Your task to perform on an android device: Open calendar and show me the first week of next month Image 0: 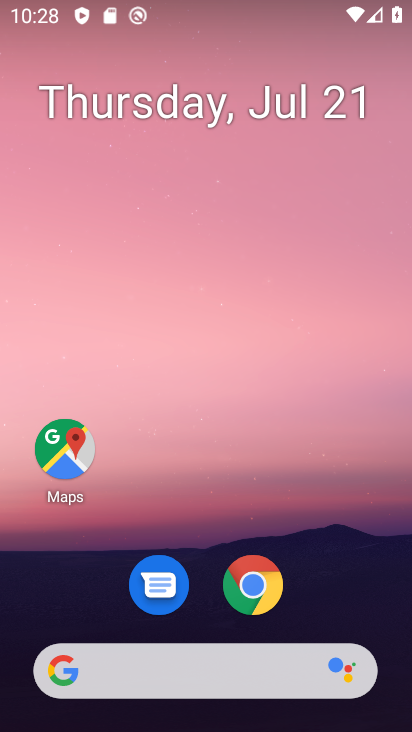
Step 0: press home button
Your task to perform on an android device: Open calendar and show me the first week of next month Image 1: 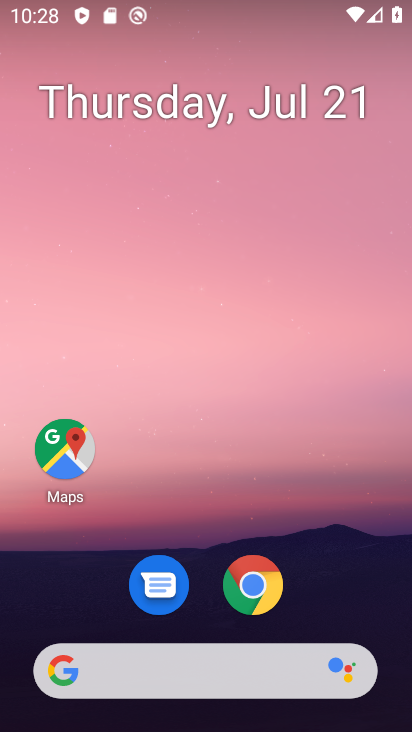
Step 1: drag from (279, 441) to (291, 156)
Your task to perform on an android device: Open calendar and show me the first week of next month Image 2: 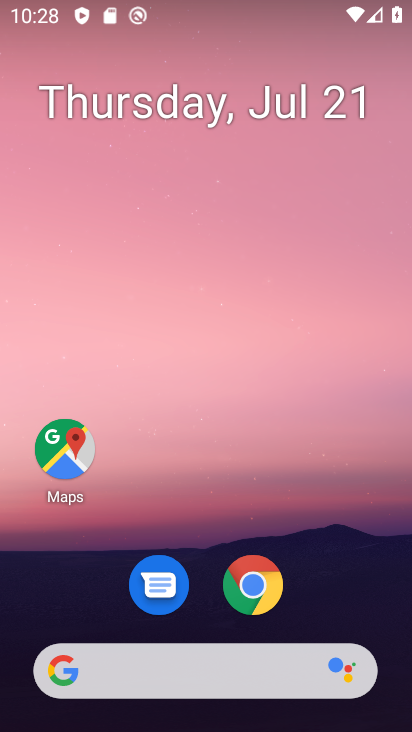
Step 2: drag from (172, 656) to (245, 15)
Your task to perform on an android device: Open calendar and show me the first week of next month Image 3: 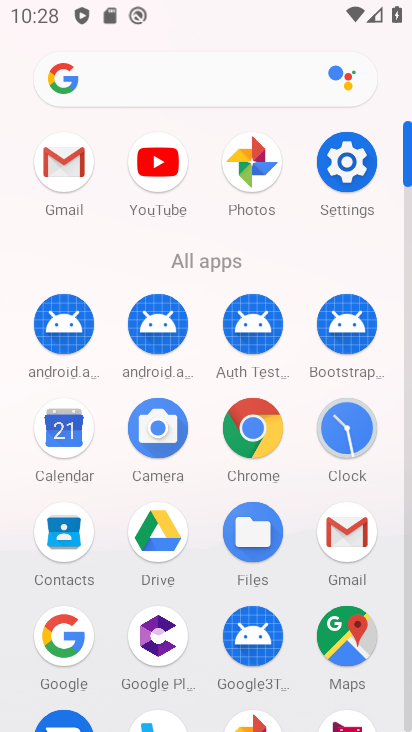
Step 3: click (64, 433)
Your task to perform on an android device: Open calendar and show me the first week of next month Image 4: 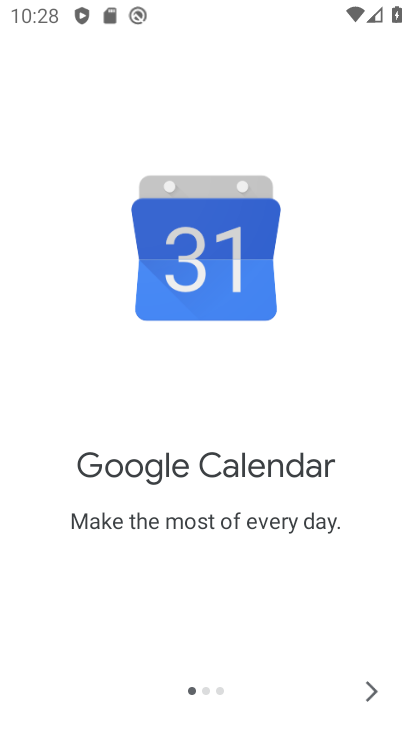
Step 4: click (354, 699)
Your task to perform on an android device: Open calendar and show me the first week of next month Image 5: 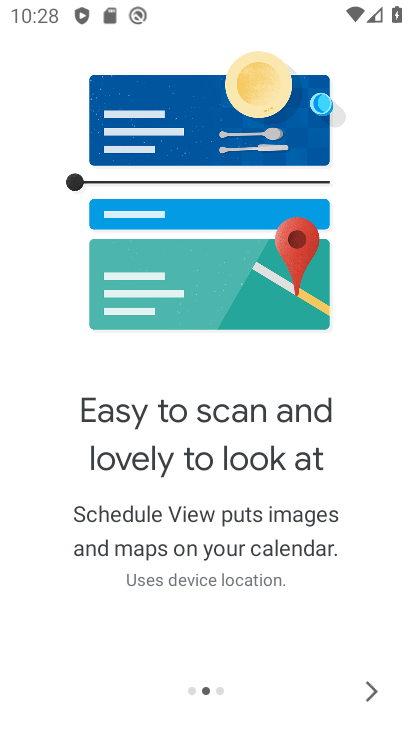
Step 5: click (354, 699)
Your task to perform on an android device: Open calendar and show me the first week of next month Image 6: 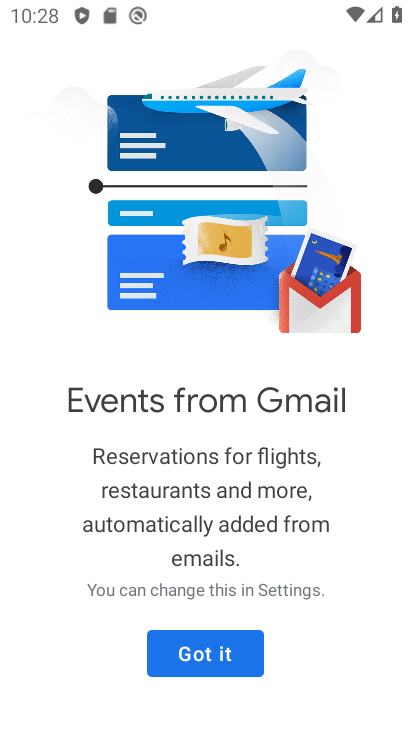
Step 6: click (210, 645)
Your task to perform on an android device: Open calendar and show me the first week of next month Image 7: 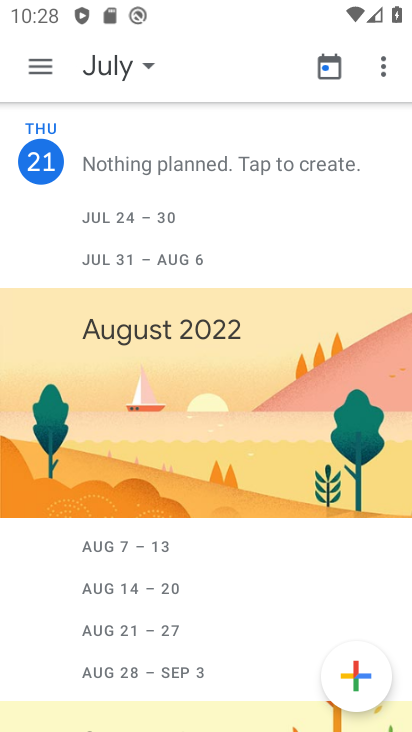
Step 7: click (122, 72)
Your task to perform on an android device: Open calendar and show me the first week of next month Image 8: 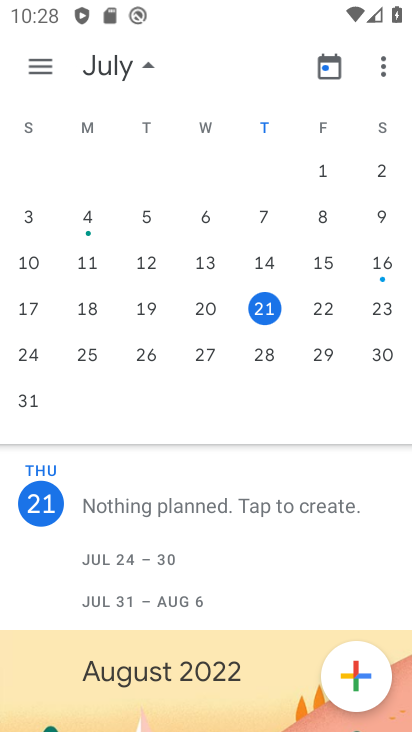
Step 8: drag from (342, 274) to (82, 240)
Your task to perform on an android device: Open calendar and show me the first week of next month Image 9: 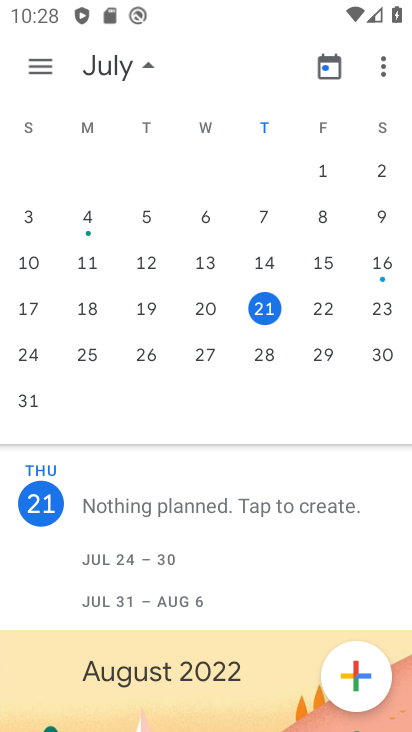
Step 9: drag from (156, 180) to (77, 191)
Your task to perform on an android device: Open calendar and show me the first week of next month Image 10: 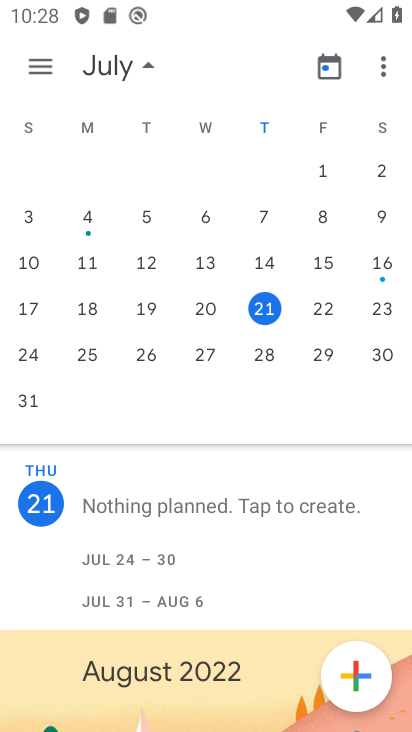
Step 10: drag from (340, 354) to (78, 258)
Your task to perform on an android device: Open calendar and show me the first week of next month Image 11: 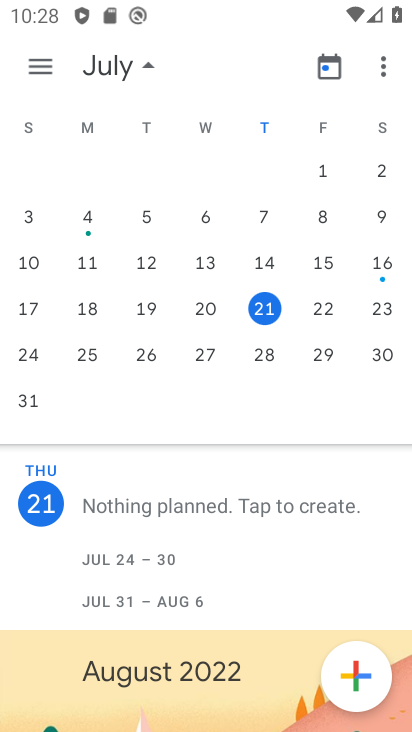
Step 11: drag from (338, 206) to (72, 185)
Your task to perform on an android device: Open calendar and show me the first week of next month Image 12: 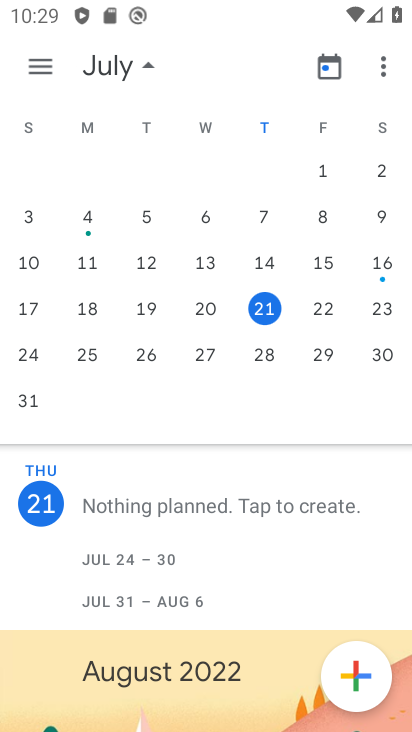
Step 12: drag from (351, 219) to (0, 246)
Your task to perform on an android device: Open calendar and show me the first week of next month Image 13: 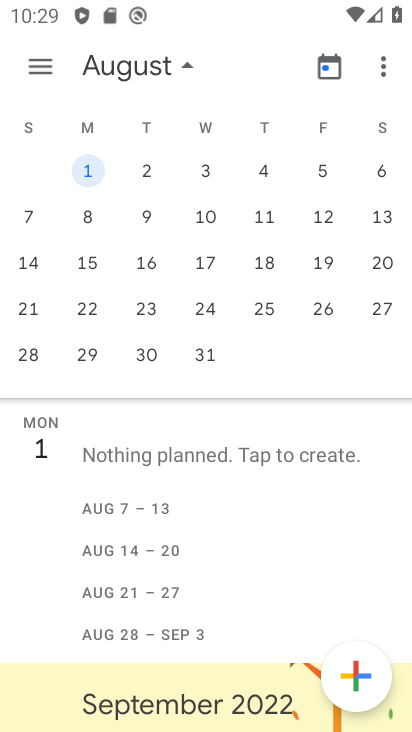
Step 13: click (87, 173)
Your task to perform on an android device: Open calendar and show me the first week of next month Image 14: 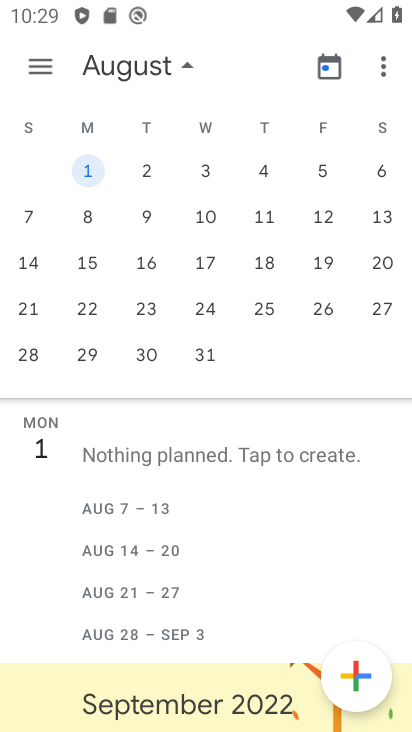
Step 14: click (31, 71)
Your task to perform on an android device: Open calendar and show me the first week of next month Image 15: 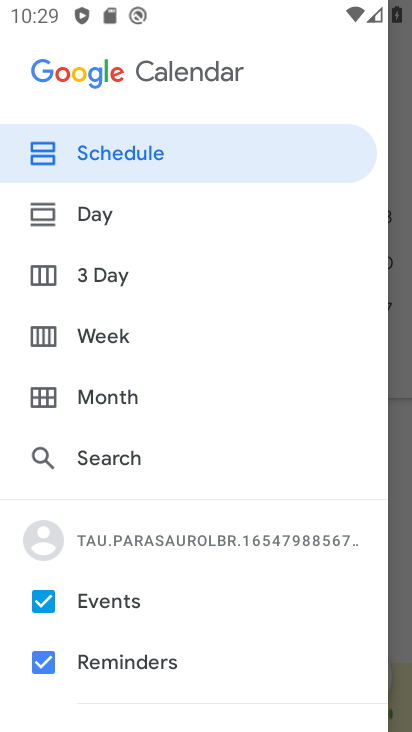
Step 15: click (111, 339)
Your task to perform on an android device: Open calendar and show me the first week of next month Image 16: 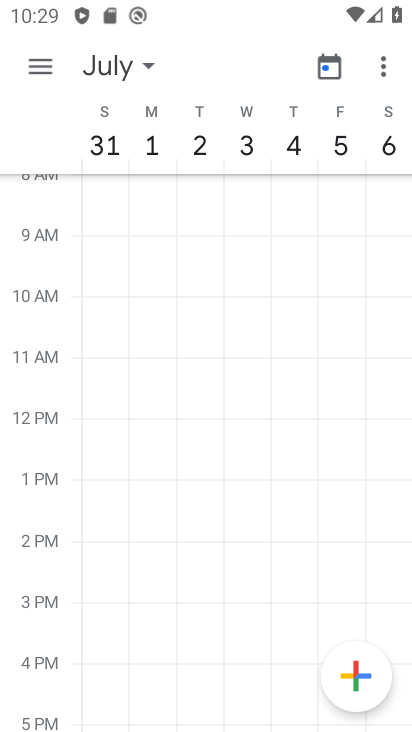
Step 16: task complete